Your task to perform on an android device: check storage Image 0: 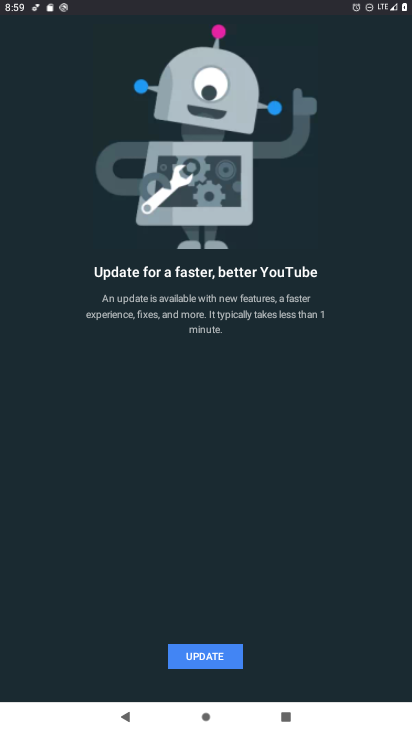
Step 0: press home button
Your task to perform on an android device: check storage Image 1: 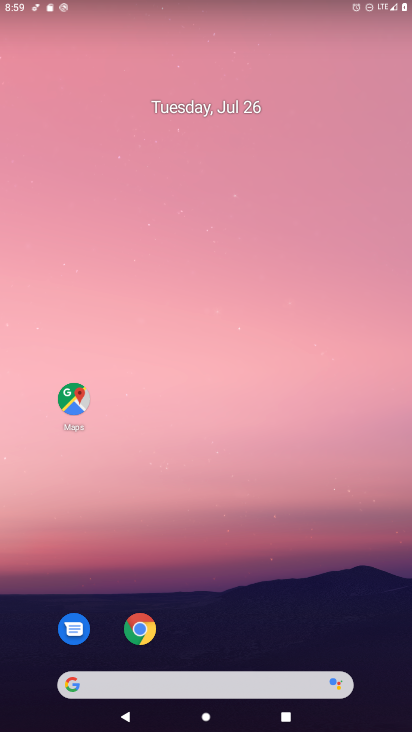
Step 1: drag from (193, 606) to (150, 20)
Your task to perform on an android device: check storage Image 2: 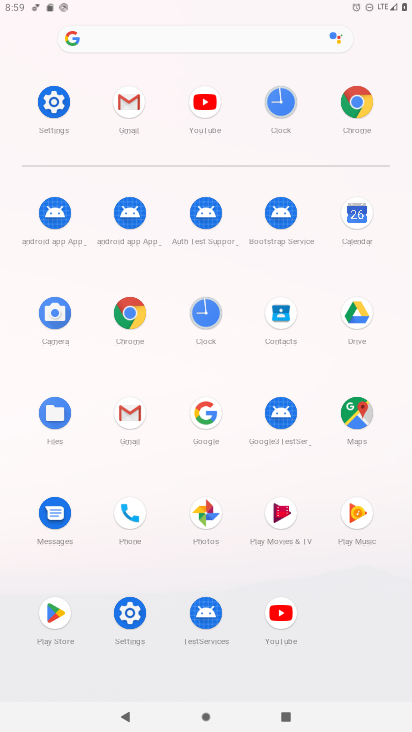
Step 2: click (135, 613)
Your task to perform on an android device: check storage Image 3: 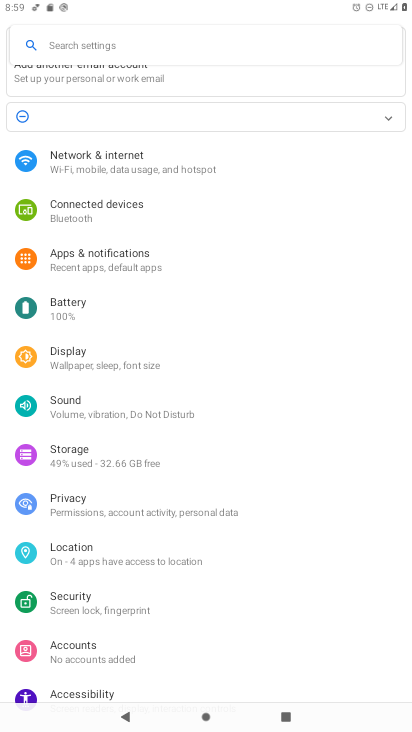
Step 3: click (78, 463)
Your task to perform on an android device: check storage Image 4: 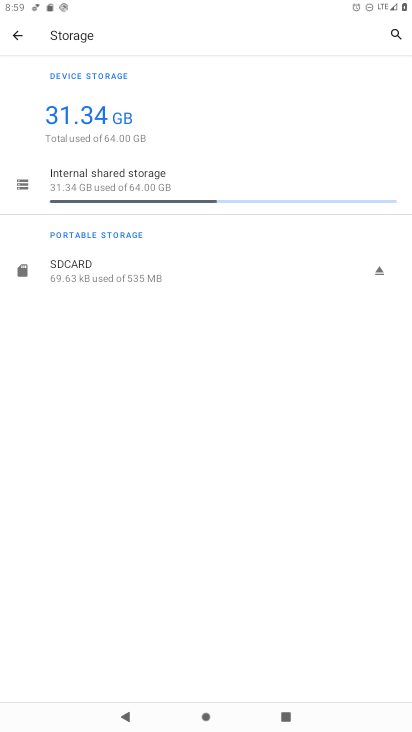
Step 4: click (78, 204)
Your task to perform on an android device: check storage Image 5: 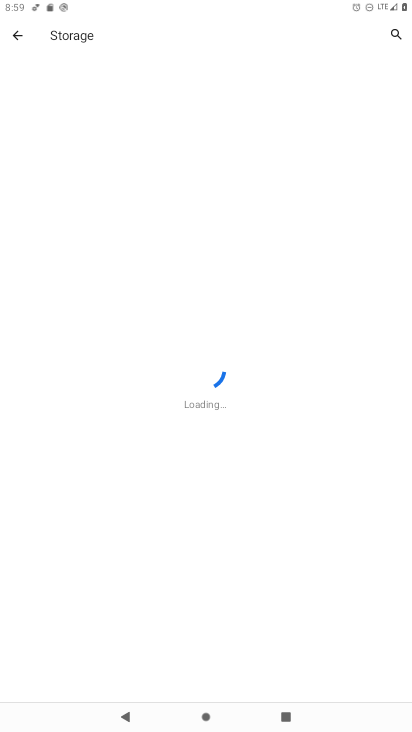
Step 5: task complete